Your task to perform on an android device: Go to display settings Image 0: 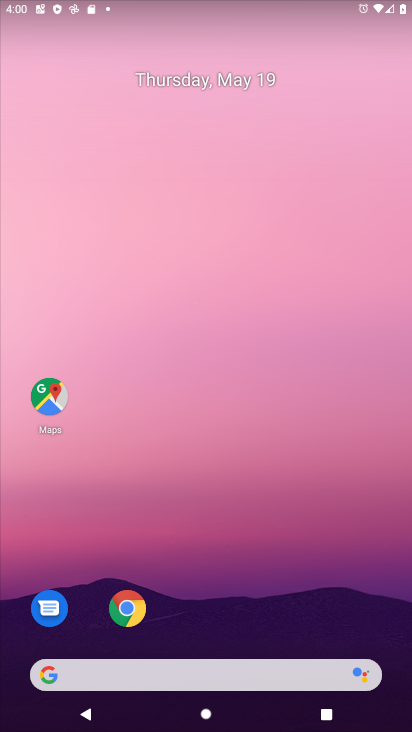
Step 0: drag from (331, 588) to (13, 47)
Your task to perform on an android device: Go to display settings Image 1: 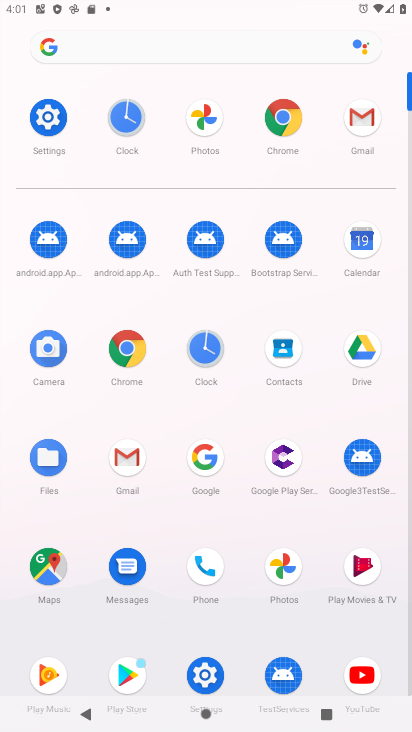
Step 1: click (48, 156)
Your task to perform on an android device: Go to display settings Image 2: 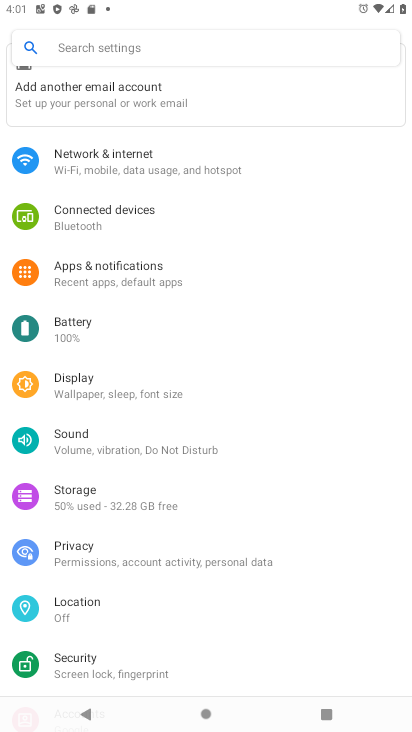
Step 2: click (147, 380)
Your task to perform on an android device: Go to display settings Image 3: 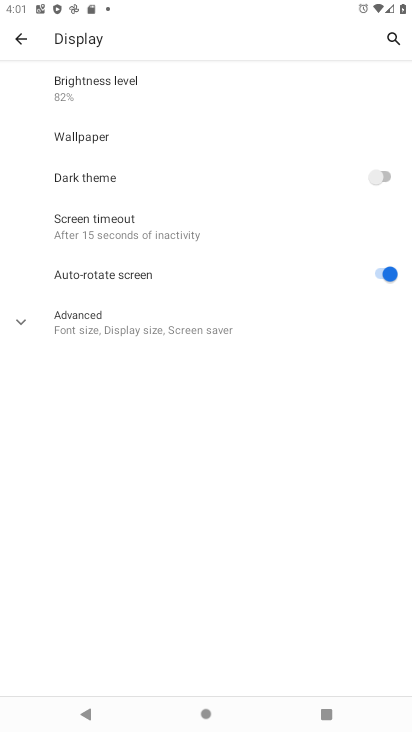
Step 3: task complete